Your task to perform on an android device: move an email to a new category in the gmail app Image 0: 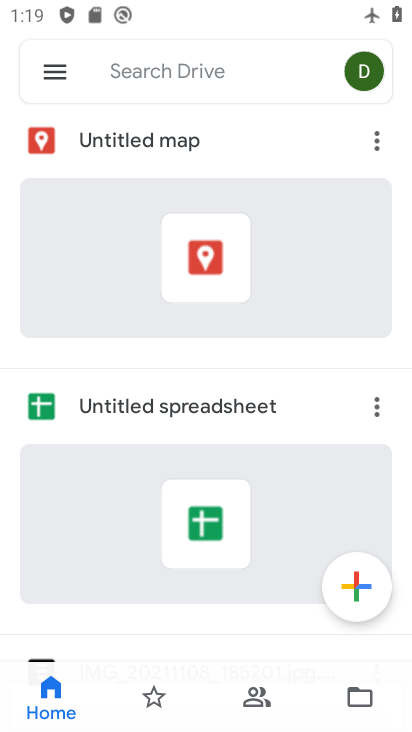
Step 0: press home button
Your task to perform on an android device: move an email to a new category in the gmail app Image 1: 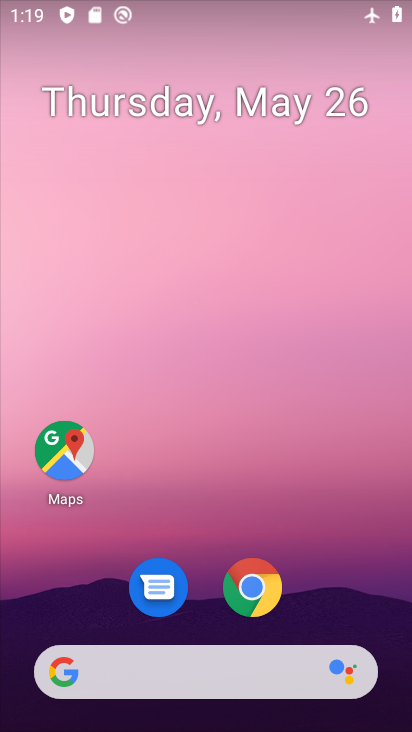
Step 1: drag from (341, 579) to (248, 58)
Your task to perform on an android device: move an email to a new category in the gmail app Image 2: 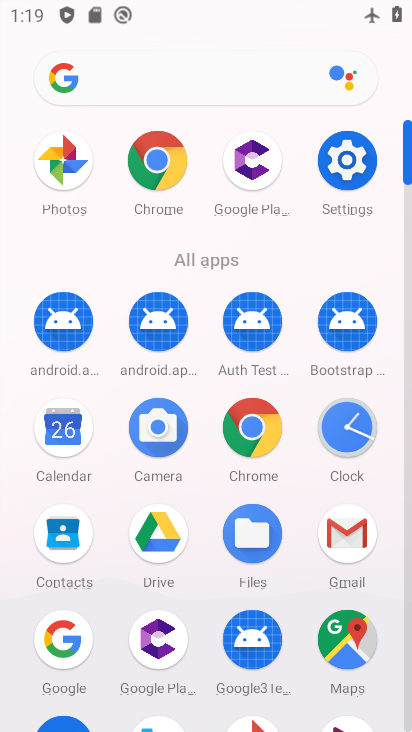
Step 2: drag from (14, 556) to (16, 261)
Your task to perform on an android device: move an email to a new category in the gmail app Image 3: 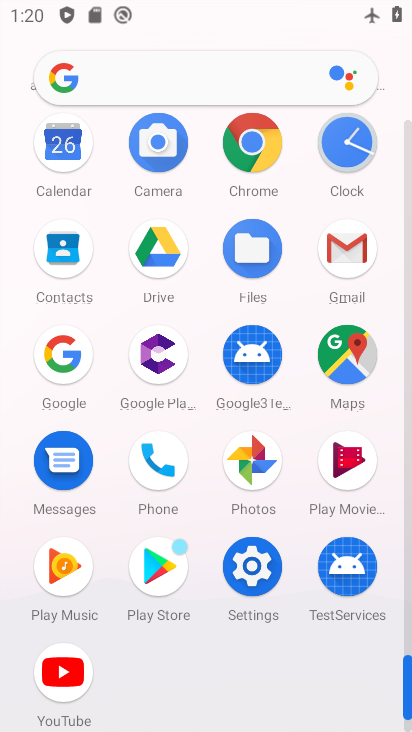
Step 3: click (349, 244)
Your task to perform on an android device: move an email to a new category in the gmail app Image 4: 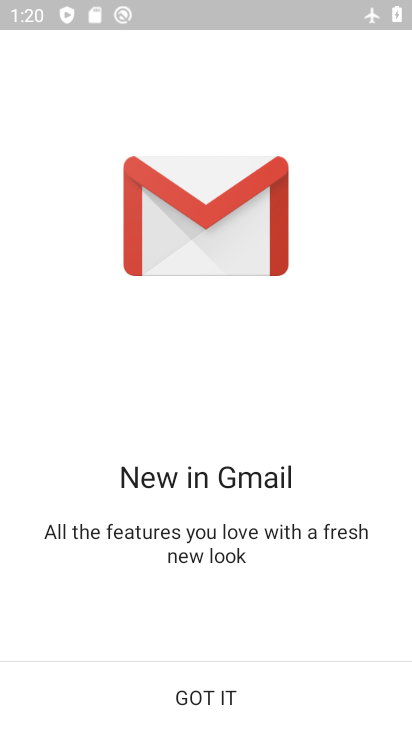
Step 4: click (179, 682)
Your task to perform on an android device: move an email to a new category in the gmail app Image 5: 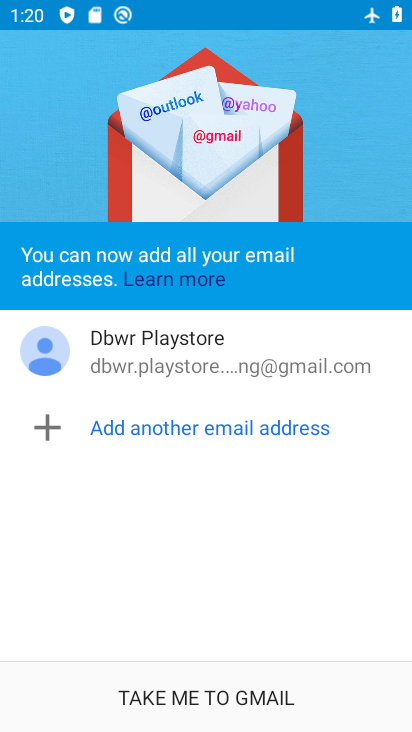
Step 5: click (175, 676)
Your task to perform on an android device: move an email to a new category in the gmail app Image 6: 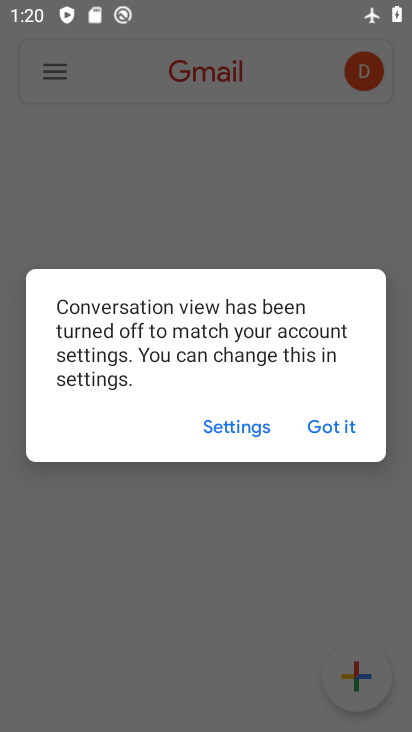
Step 6: click (333, 403)
Your task to perform on an android device: move an email to a new category in the gmail app Image 7: 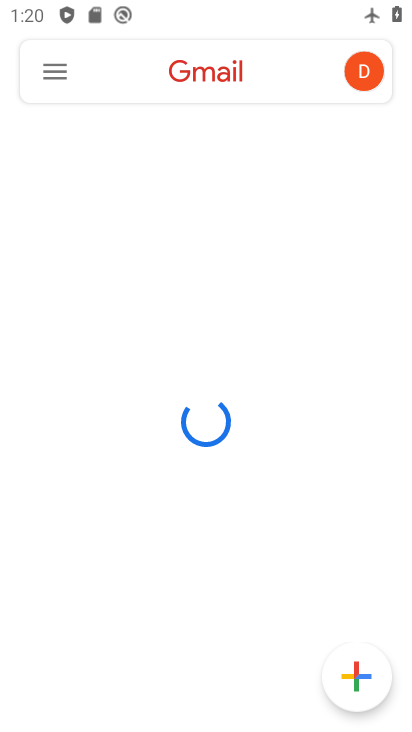
Step 7: click (57, 61)
Your task to perform on an android device: move an email to a new category in the gmail app Image 8: 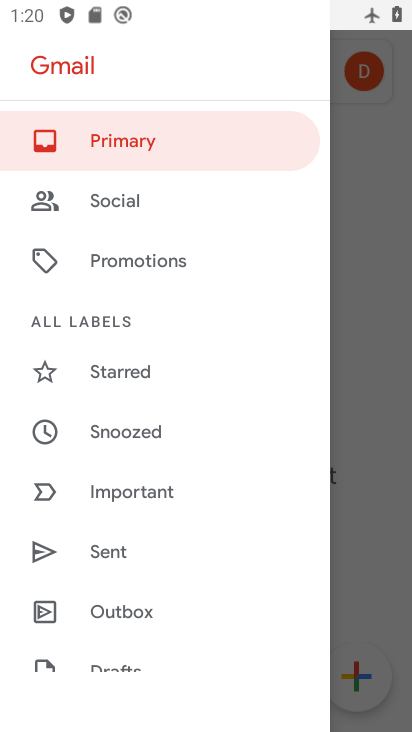
Step 8: drag from (158, 621) to (199, 219)
Your task to perform on an android device: move an email to a new category in the gmail app Image 9: 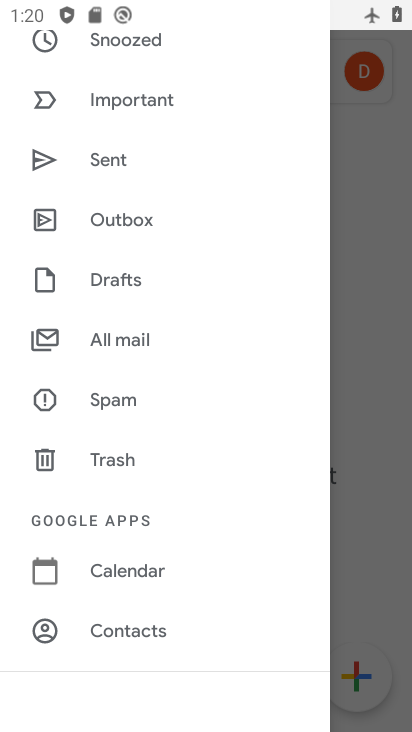
Step 9: click (134, 454)
Your task to perform on an android device: move an email to a new category in the gmail app Image 10: 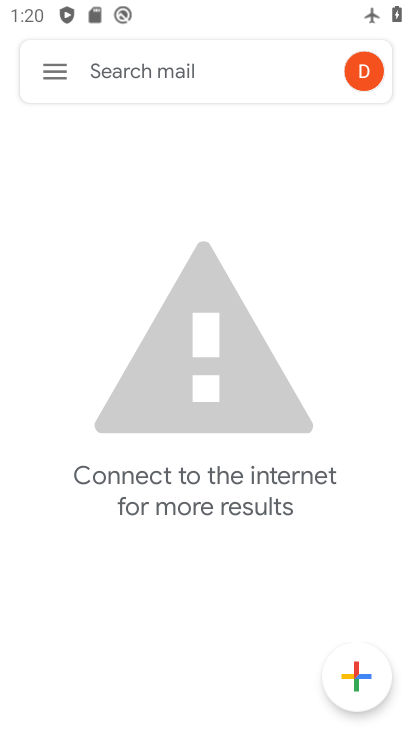
Step 10: click (42, 61)
Your task to perform on an android device: move an email to a new category in the gmail app Image 11: 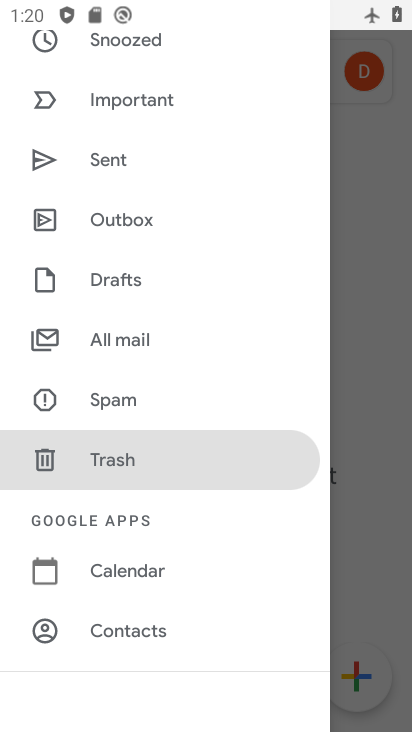
Step 11: click (157, 340)
Your task to perform on an android device: move an email to a new category in the gmail app Image 12: 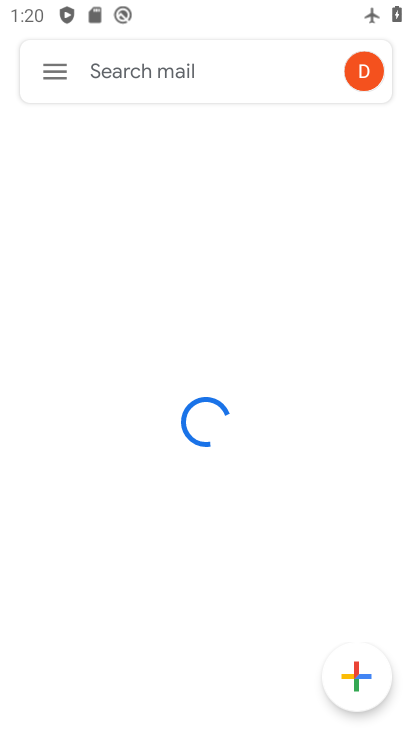
Step 12: click (57, 73)
Your task to perform on an android device: move an email to a new category in the gmail app Image 13: 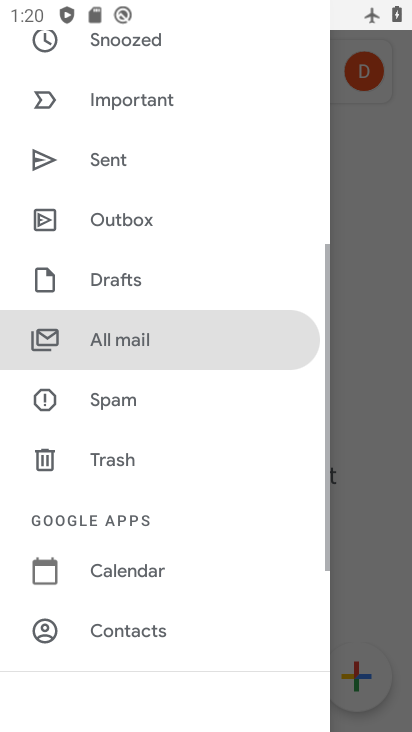
Step 13: drag from (187, 151) to (213, 602)
Your task to perform on an android device: move an email to a new category in the gmail app Image 14: 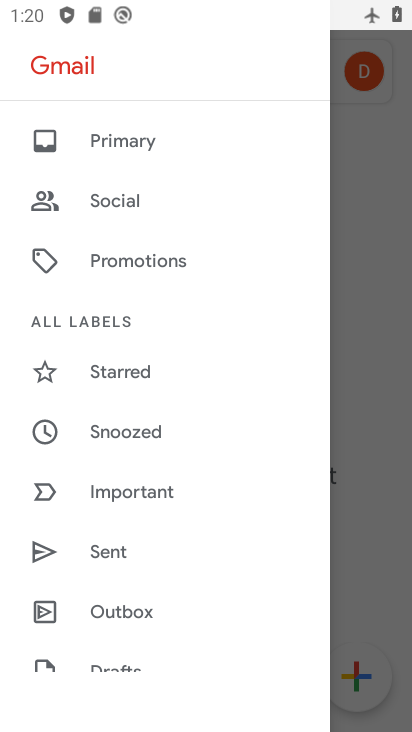
Step 14: click (135, 143)
Your task to perform on an android device: move an email to a new category in the gmail app Image 15: 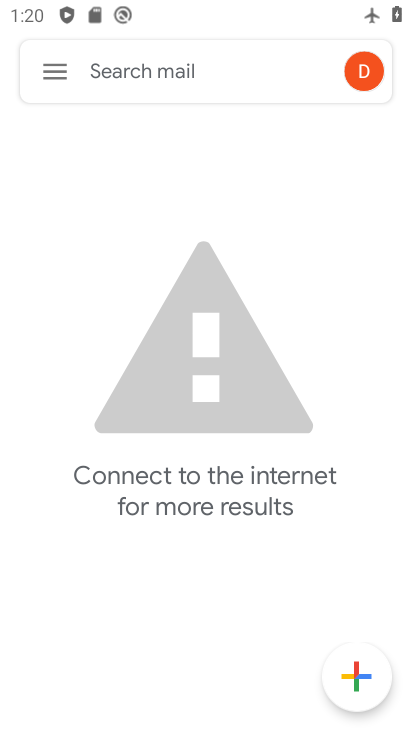
Step 15: task complete